Your task to perform on an android device: turn on airplane mode Image 0: 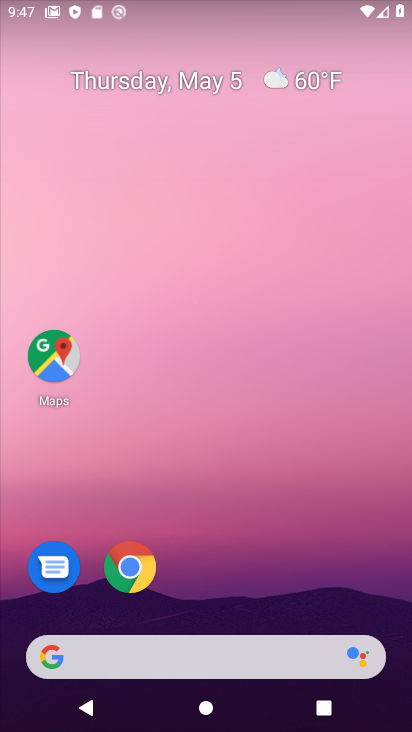
Step 0: drag from (332, 603) to (371, 95)
Your task to perform on an android device: turn on airplane mode Image 1: 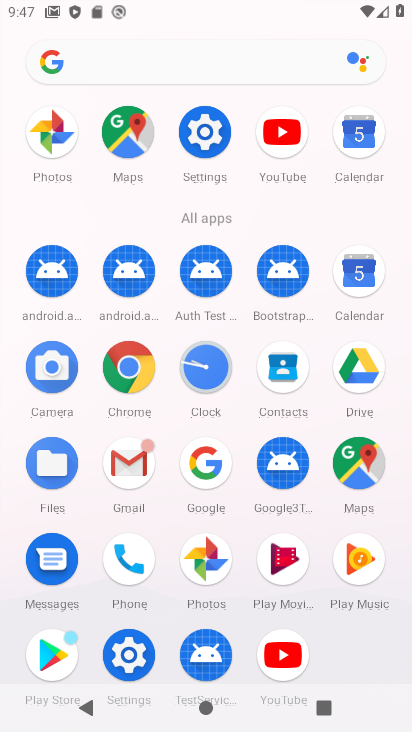
Step 1: click (206, 134)
Your task to perform on an android device: turn on airplane mode Image 2: 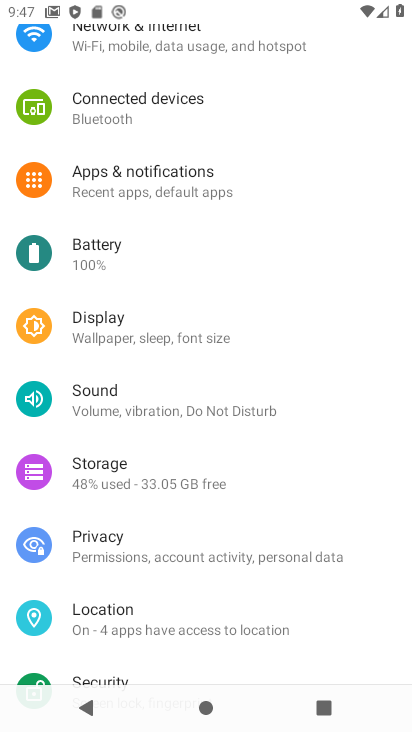
Step 2: drag from (150, 118) to (175, 412)
Your task to perform on an android device: turn on airplane mode Image 3: 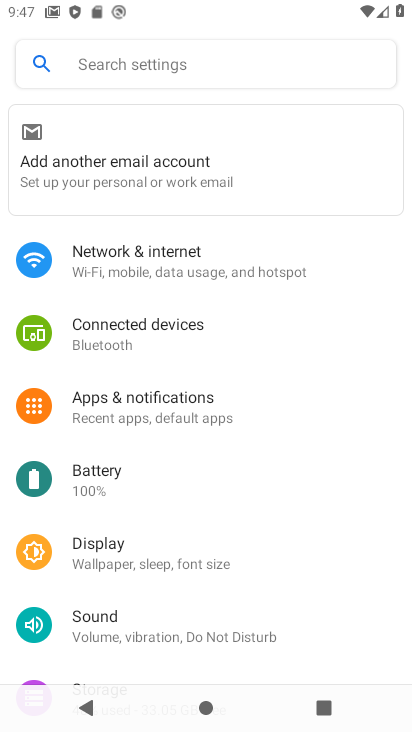
Step 3: click (133, 257)
Your task to perform on an android device: turn on airplane mode Image 4: 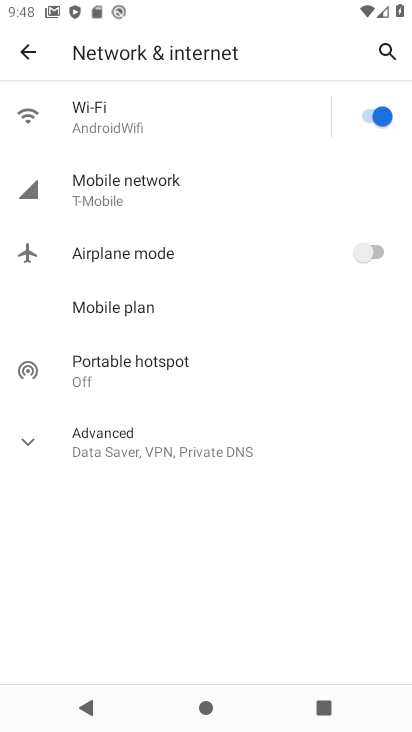
Step 4: click (380, 259)
Your task to perform on an android device: turn on airplane mode Image 5: 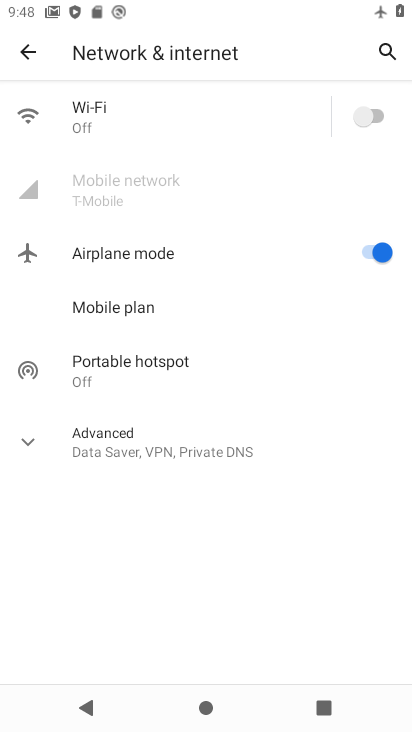
Step 5: task complete